Your task to perform on an android device: turn off data saver in the chrome app Image 0: 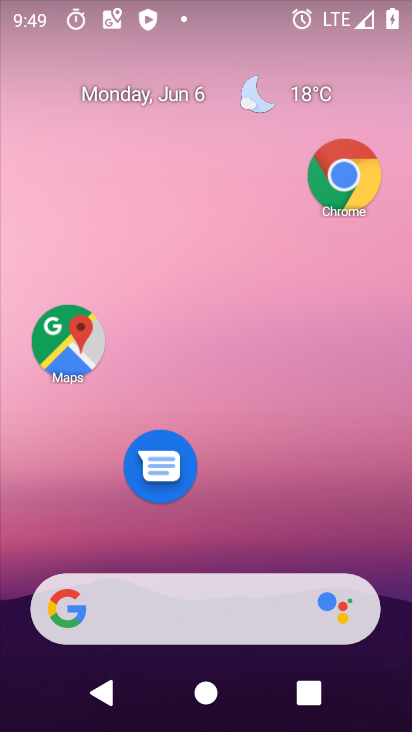
Step 0: drag from (190, 483) to (213, 113)
Your task to perform on an android device: turn off data saver in the chrome app Image 1: 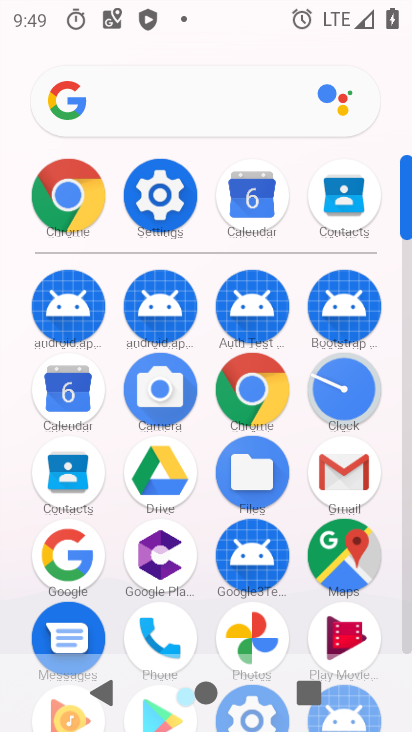
Step 1: click (250, 388)
Your task to perform on an android device: turn off data saver in the chrome app Image 2: 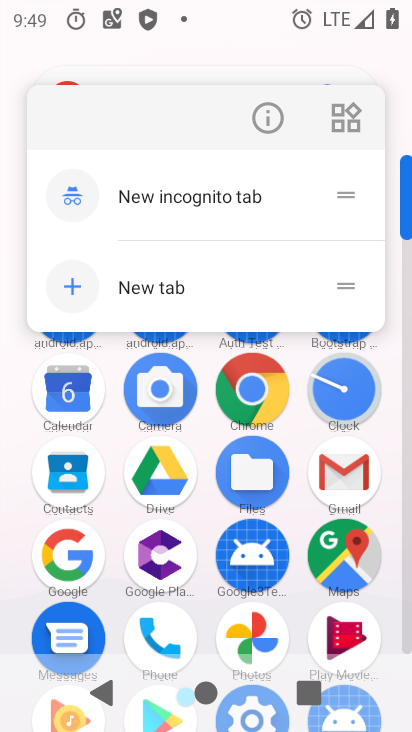
Step 2: click (278, 125)
Your task to perform on an android device: turn off data saver in the chrome app Image 3: 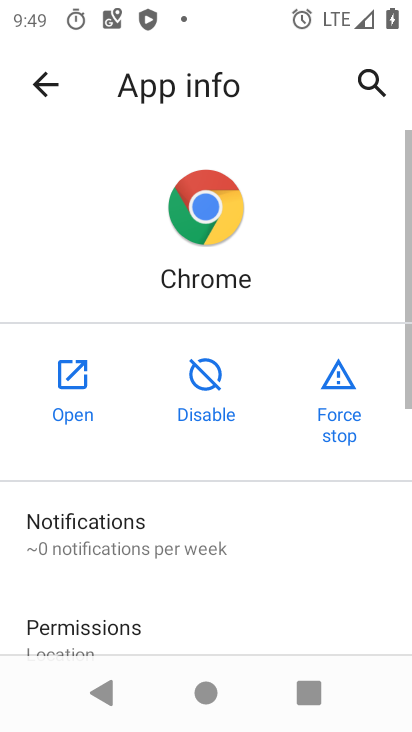
Step 3: click (83, 389)
Your task to perform on an android device: turn off data saver in the chrome app Image 4: 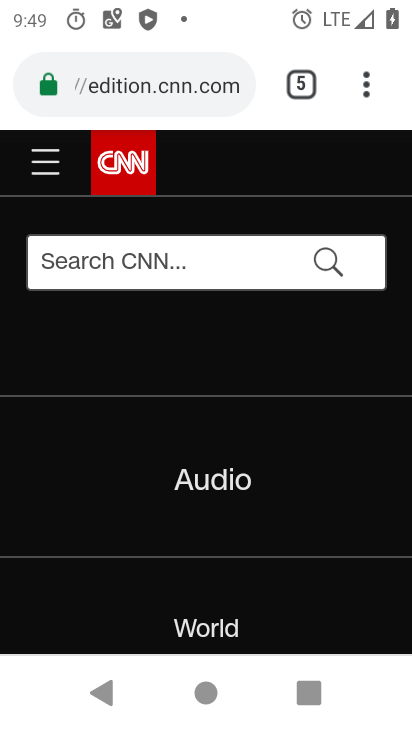
Step 4: click (377, 86)
Your task to perform on an android device: turn off data saver in the chrome app Image 5: 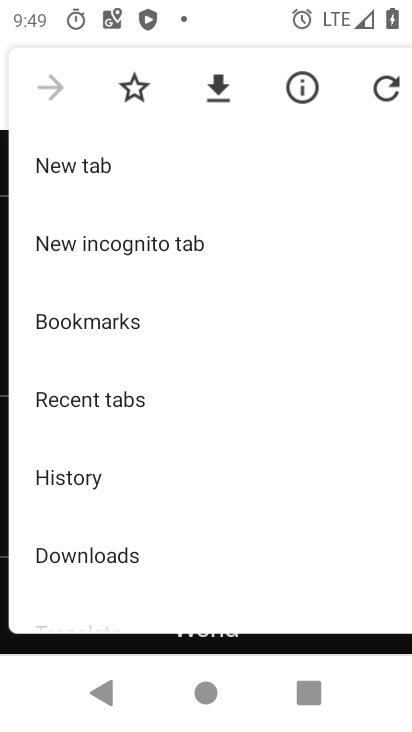
Step 5: drag from (185, 533) to (263, 0)
Your task to perform on an android device: turn off data saver in the chrome app Image 6: 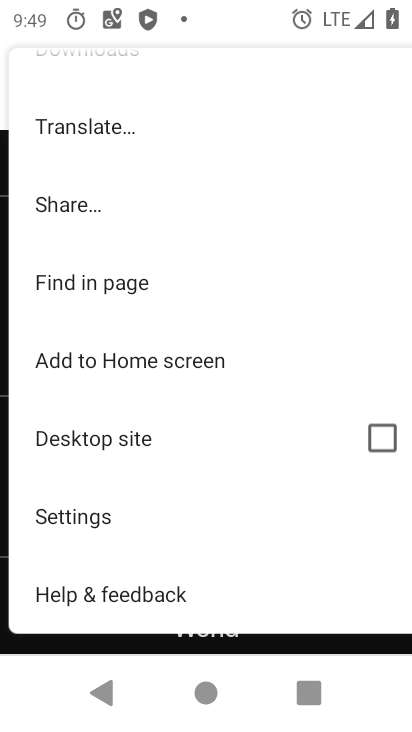
Step 6: click (104, 503)
Your task to perform on an android device: turn off data saver in the chrome app Image 7: 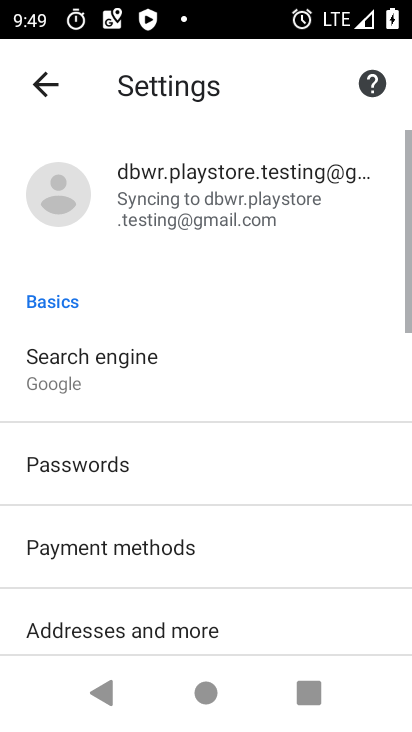
Step 7: drag from (241, 536) to (334, 60)
Your task to perform on an android device: turn off data saver in the chrome app Image 8: 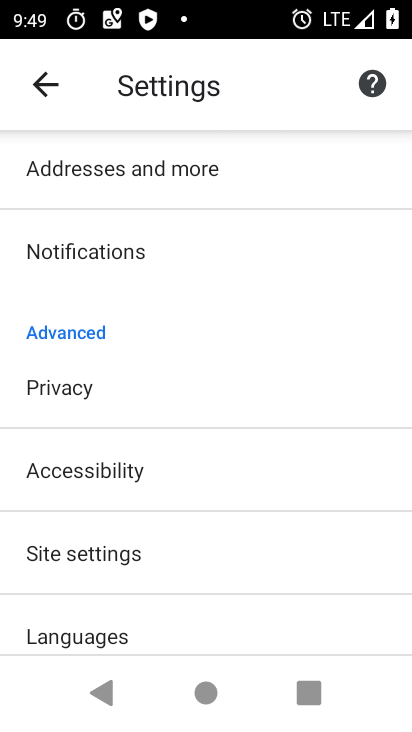
Step 8: drag from (186, 545) to (256, 104)
Your task to perform on an android device: turn off data saver in the chrome app Image 9: 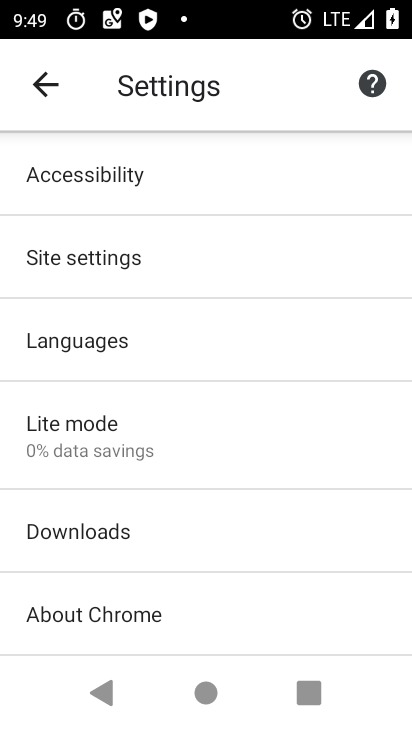
Step 9: click (117, 429)
Your task to perform on an android device: turn off data saver in the chrome app Image 10: 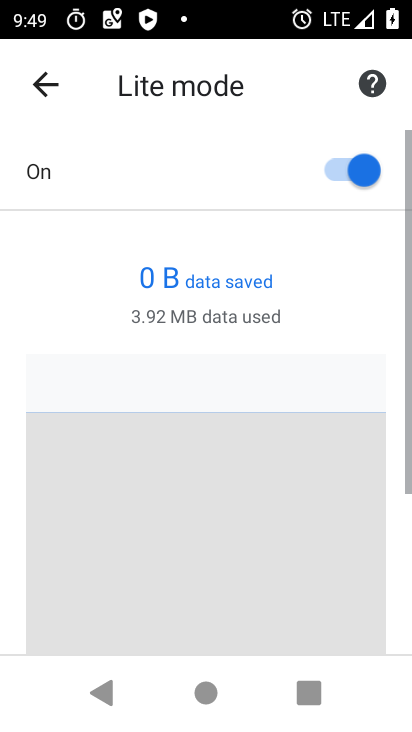
Step 10: drag from (213, 524) to (300, 190)
Your task to perform on an android device: turn off data saver in the chrome app Image 11: 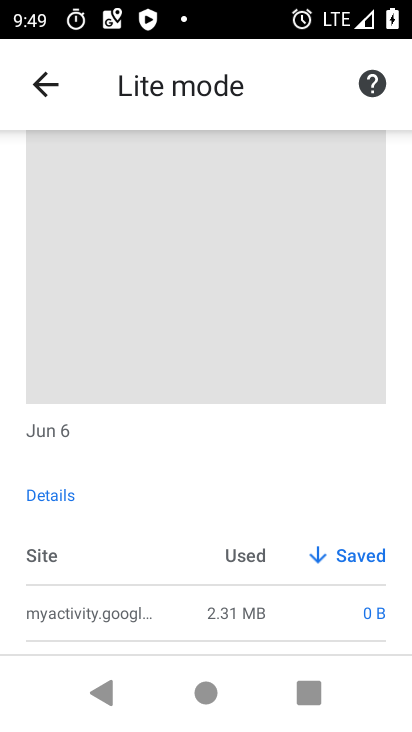
Step 11: drag from (199, 214) to (398, 723)
Your task to perform on an android device: turn off data saver in the chrome app Image 12: 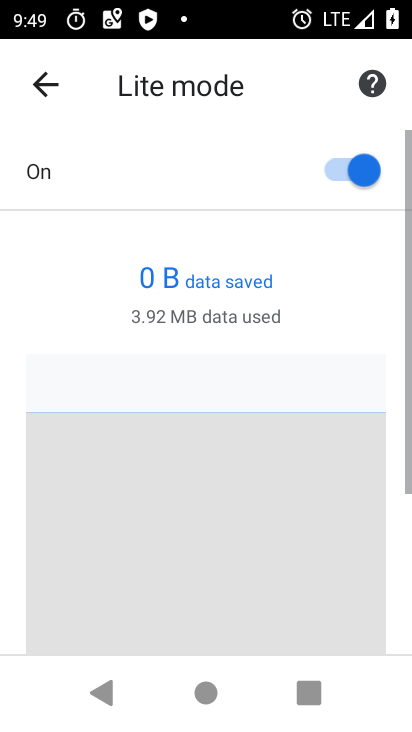
Step 12: click (359, 156)
Your task to perform on an android device: turn off data saver in the chrome app Image 13: 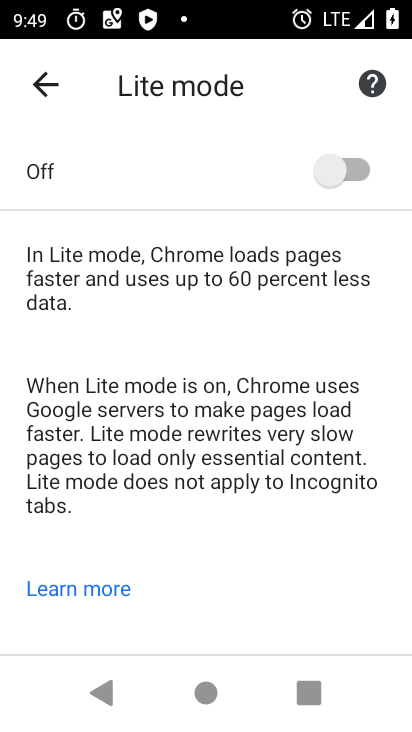
Step 13: task complete